Your task to perform on an android device: turn on location history Image 0: 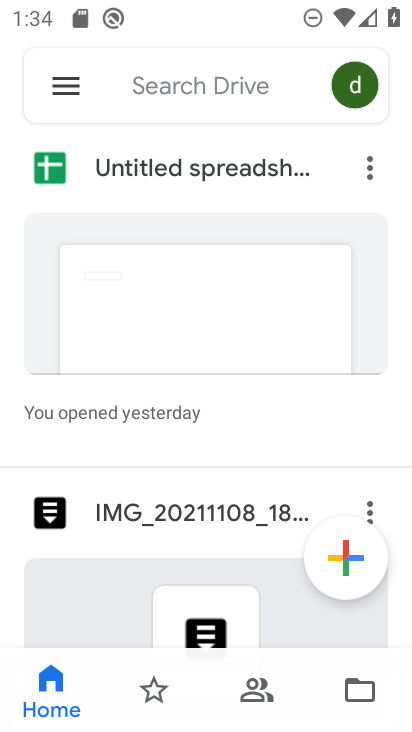
Step 0: press home button
Your task to perform on an android device: turn on location history Image 1: 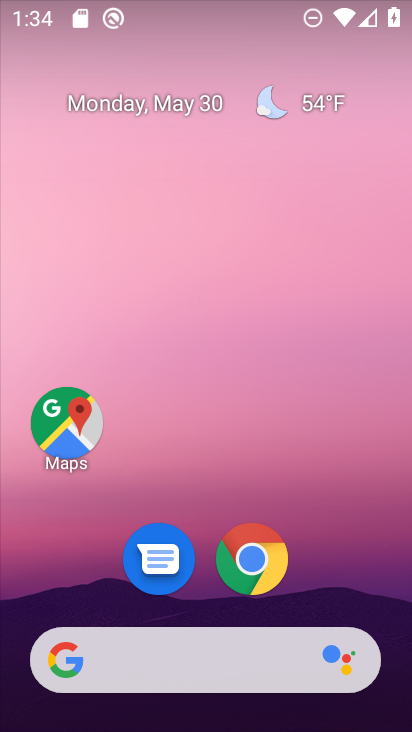
Step 1: drag from (304, 580) to (280, 67)
Your task to perform on an android device: turn on location history Image 2: 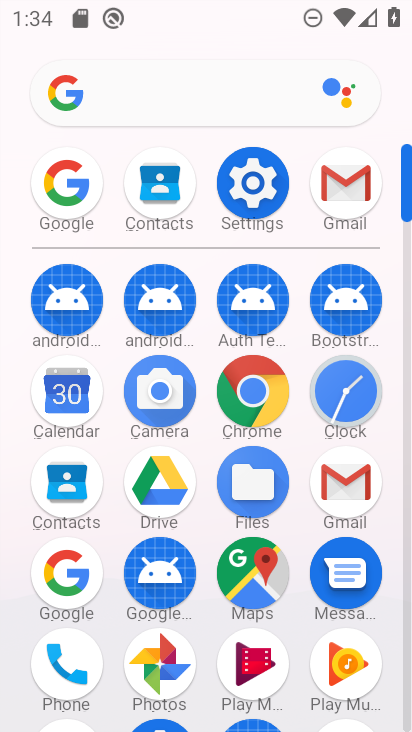
Step 2: click (248, 186)
Your task to perform on an android device: turn on location history Image 3: 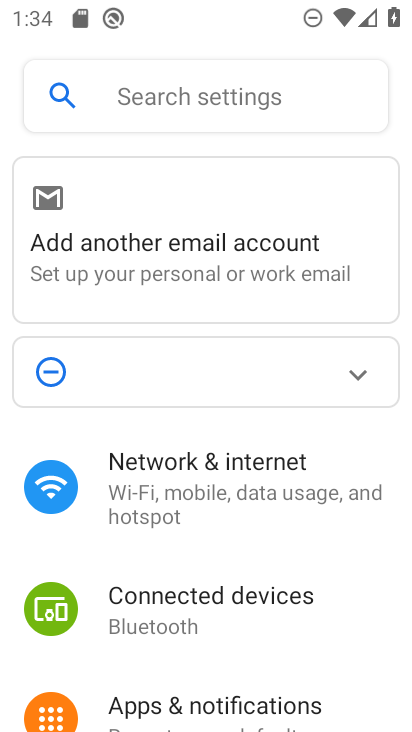
Step 3: drag from (166, 592) to (240, 223)
Your task to perform on an android device: turn on location history Image 4: 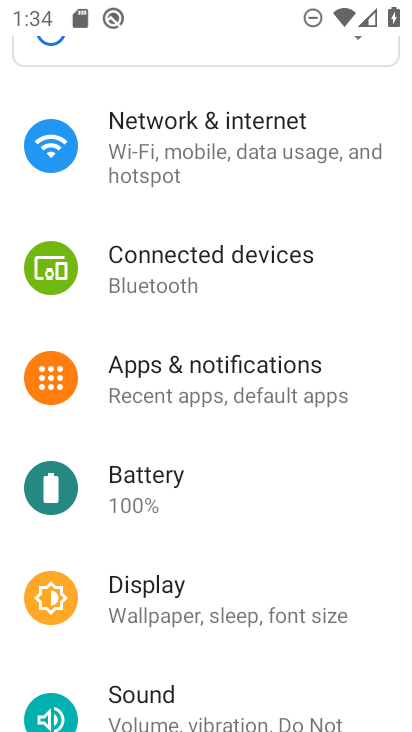
Step 4: drag from (196, 641) to (218, 90)
Your task to perform on an android device: turn on location history Image 5: 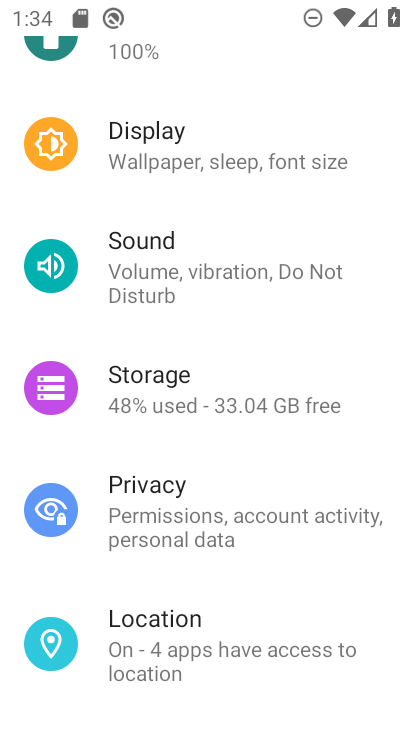
Step 5: click (127, 651)
Your task to perform on an android device: turn on location history Image 6: 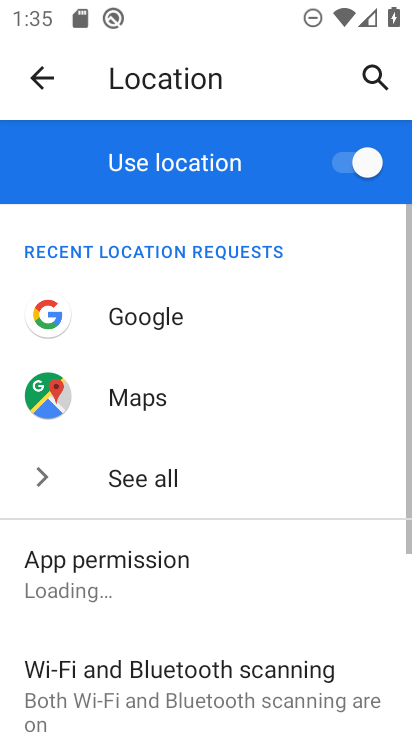
Step 6: drag from (175, 586) to (184, 151)
Your task to perform on an android device: turn on location history Image 7: 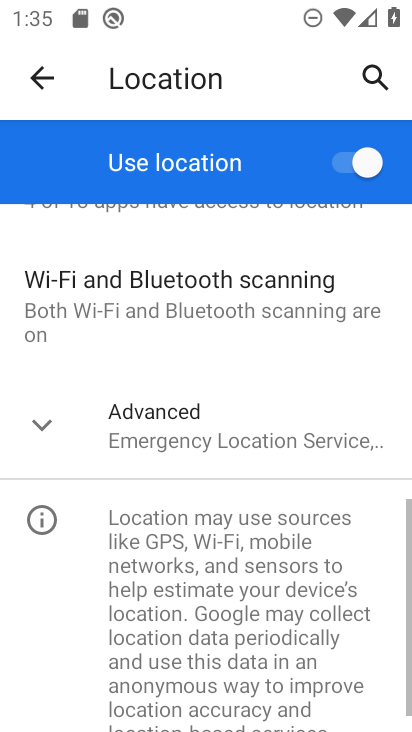
Step 7: click (169, 448)
Your task to perform on an android device: turn on location history Image 8: 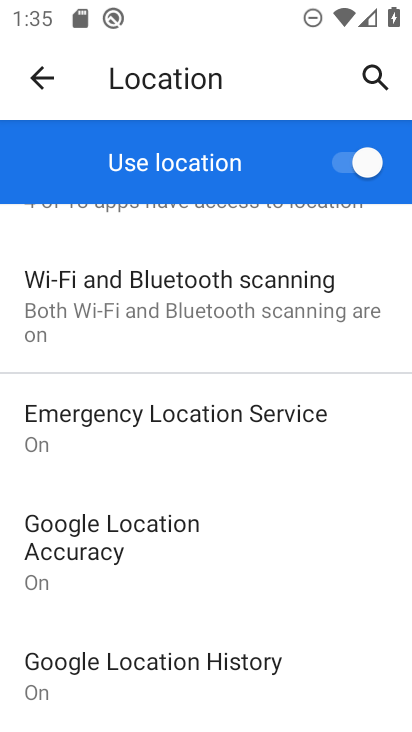
Step 8: click (159, 659)
Your task to perform on an android device: turn on location history Image 9: 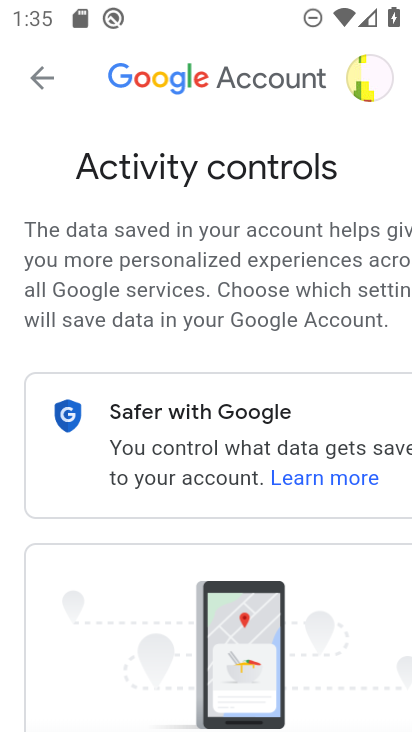
Step 9: task complete